Your task to perform on an android device: toggle airplane mode Image 0: 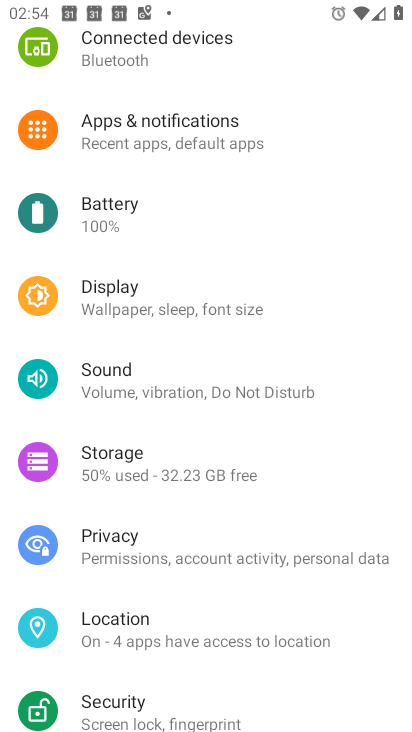
Step 0: drag from (224, 147) to (234, 556)
Your task to perform on an android device: toggle airplane mode Image 1: 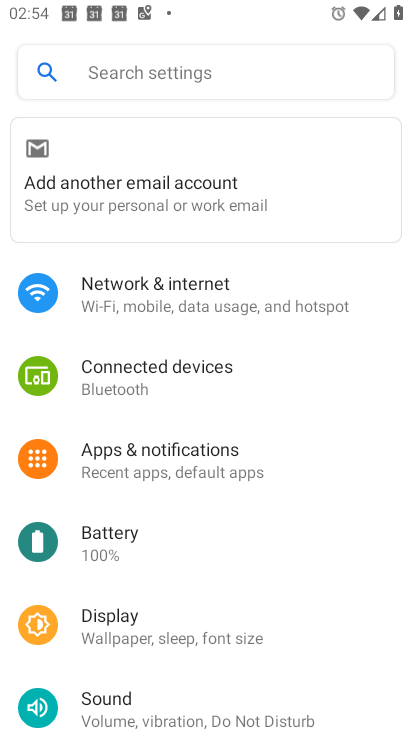
Step 1: click (177, 287)
Your task to perform on an android device: toggle airplane mode Image 2: 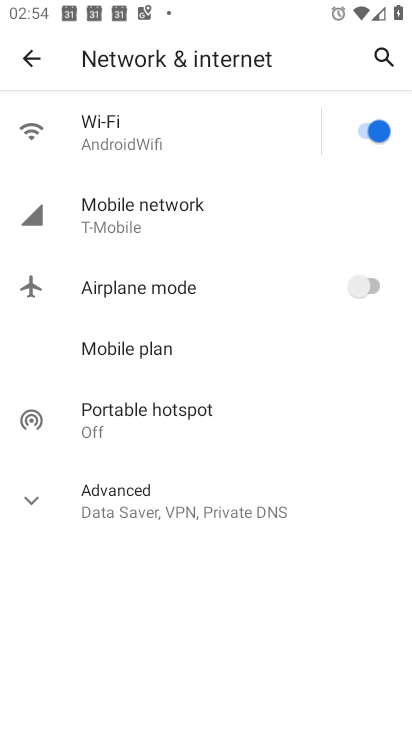
Step 2: click (372, 283)
Your task to perform on an android device: toggle airplane mode Image 3: 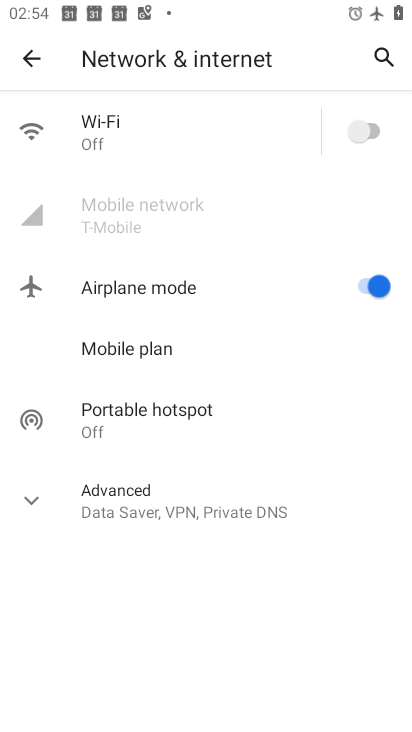
Step 3: task complete